Your task to perform on an android device: Open Google Maps and go to "Timeline" Image 0: 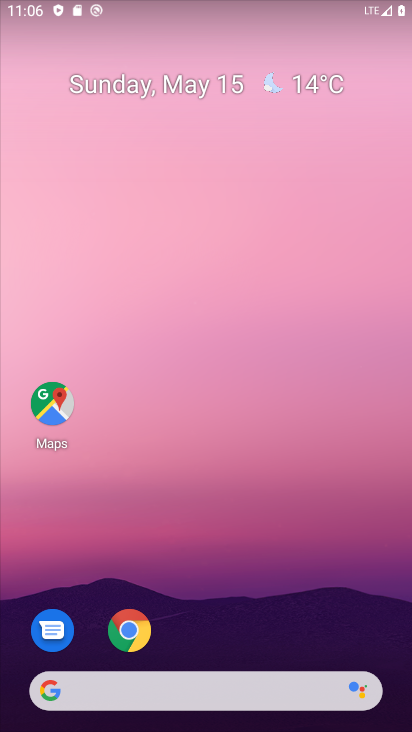
Step 0: press back button
Your task to perform on an android device: Open Google Maps and go to "Timeline" Image 1: 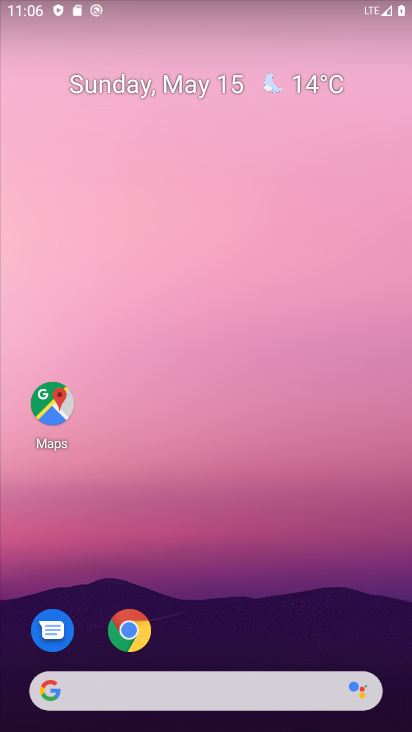
Step 1: click (49, 416)
Your task to perform on an android device: Open Google Maps and go to "Timeline" Image 2: 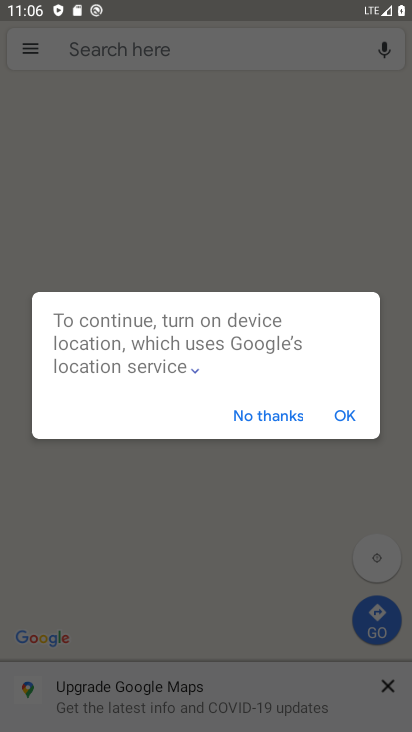
Step 2: click (288, 416)
Your task to perform on an android device: Open Google Maps and go to "Timeline" Image 3: 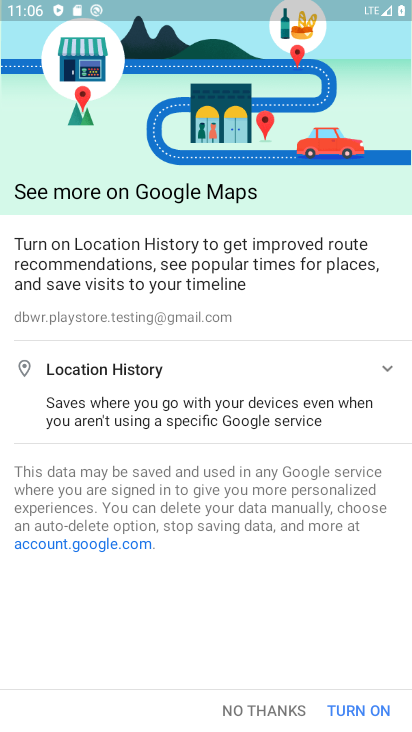
Step 3: click (286, 709)
Your task to perform on an android device: Open Google Maps and go to "Timeline" Image 4: 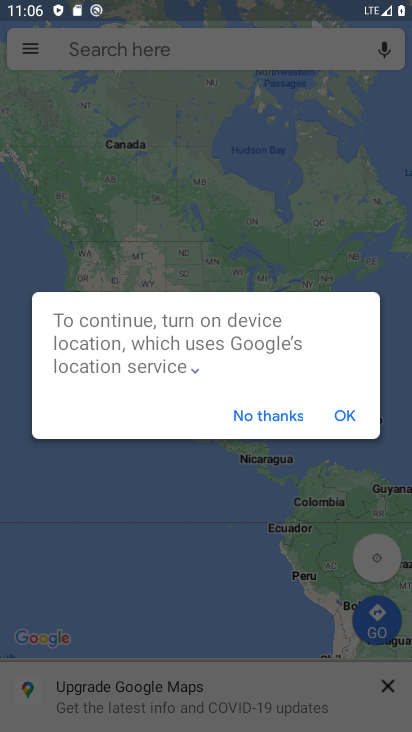
Step 4: click (246, 411)
Your task to perform on an android device: Open Google Maps and go to "Timeline" Image 5: 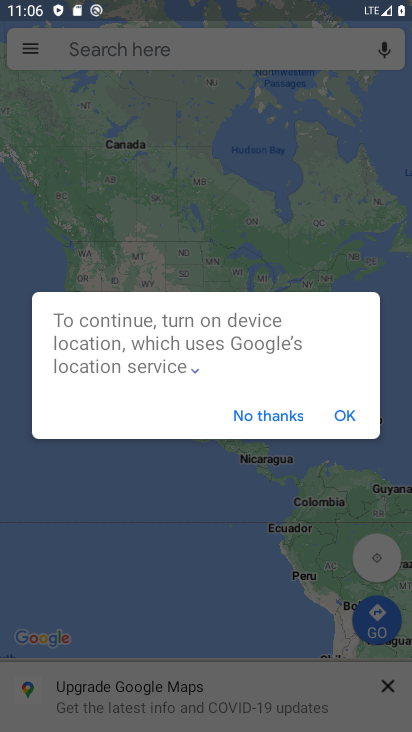
Step 5: click (341, 412)
Your task to perform on an android device: Open Google Maps and go to "Timeline" Image 6: 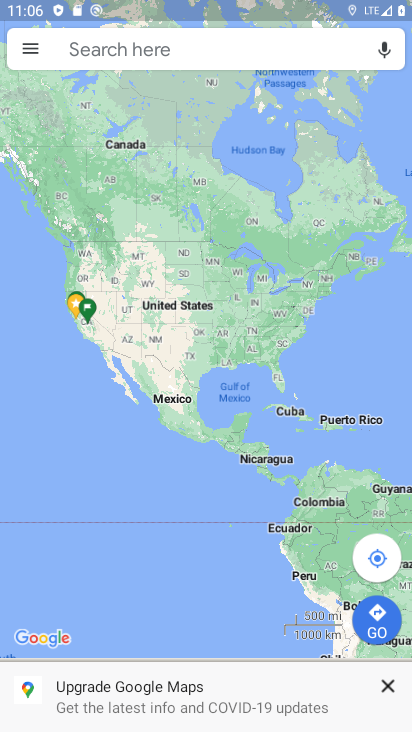
Step 6: click (34, 47)
Your task to perform on an android device: Open Google Maps and go to "Timeline" Image 7: 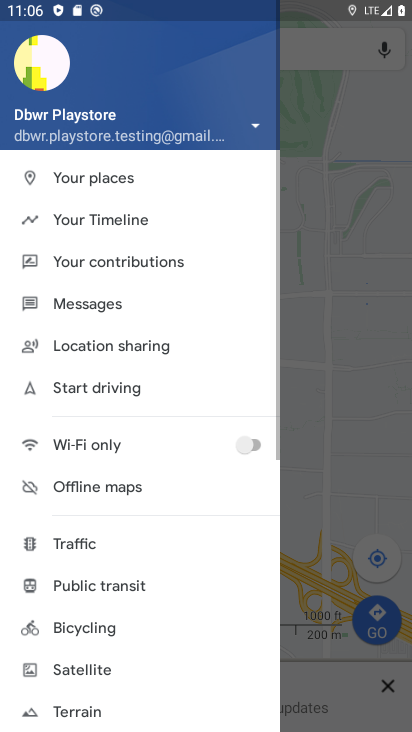
Step 7: click (106, 211)
Your task to perform on an android device: Open Google Maps and go to "Timeline" Image 8: 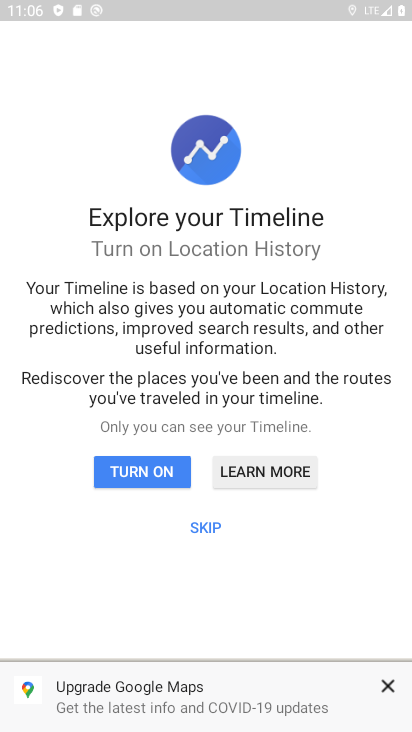
Step 8: click (214, 527)
Your task to perform on an android device: Open Google Maps and go to "Timeline" Image 9: 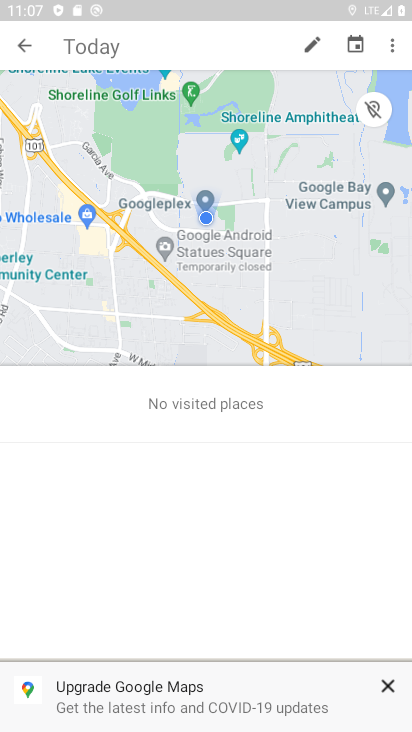
Step 9: task complete